Your task to perform on an android device: turn off improve location accuracy Image 0: 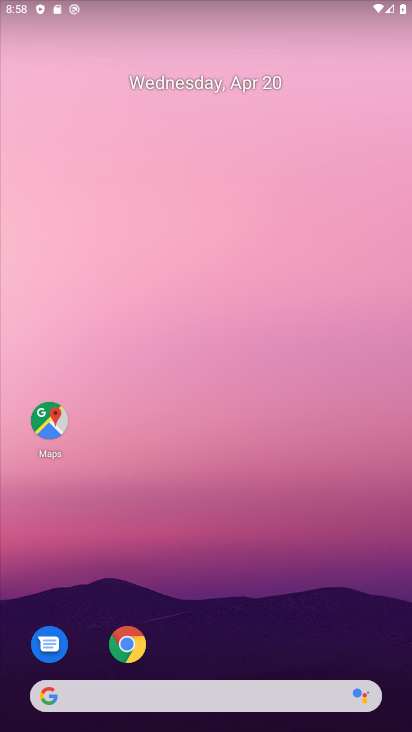
Step 0: drag from (199, 653) to (190, 66)
Your task to perform on an android device: turn off improve location accuracy Image 1: 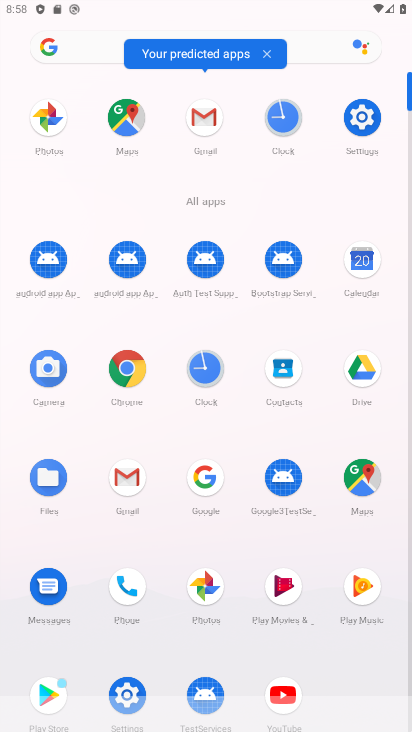
Step 1: click (130, 686)
Your task to perform on an android device: turn off improve location accuracy Image 2: 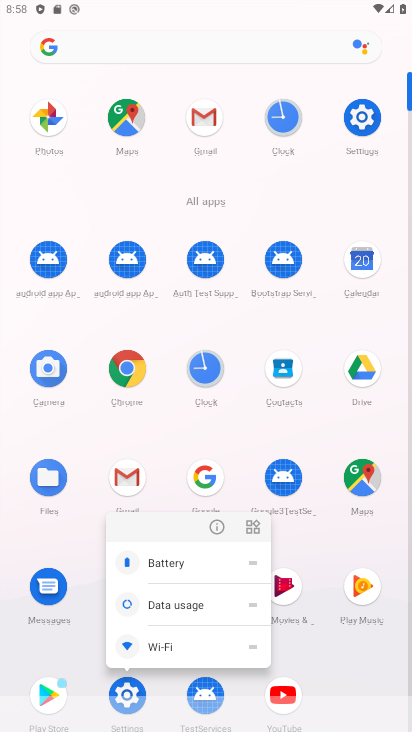
Step 2: click (118, 683)
Your task to perform on an android device: turn off improve location accuracy Image 3: 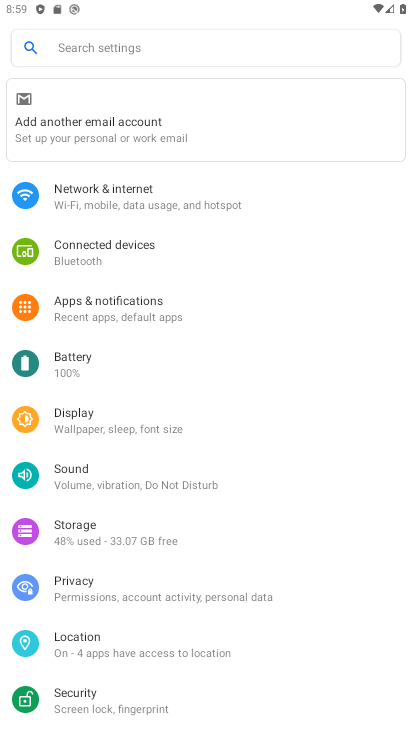
Step 3: click (97, 636)
Your task to perform on an android device: turn off improve location accuracy Image 4: 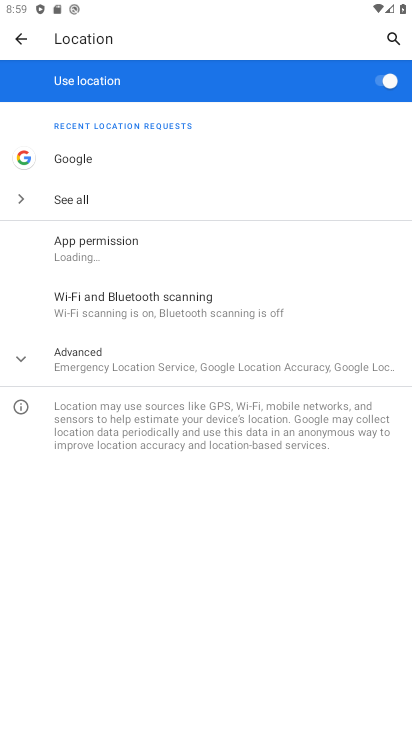
Step 4: click (115, 370)
Your task to perform on an android device: turn off improve location accuracy Image 5: 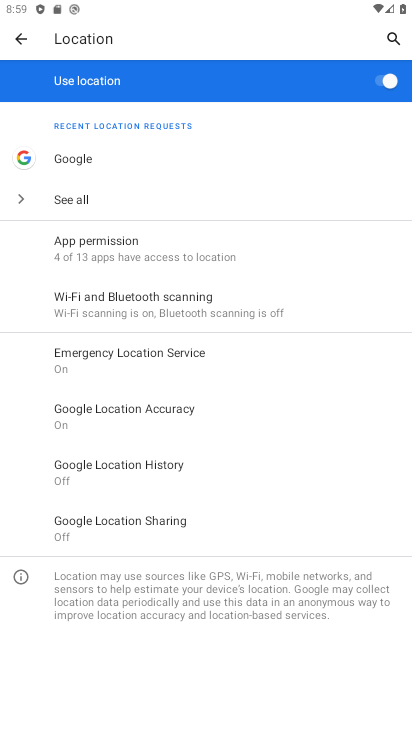
Step 5: click (148, 415)
Your task to perform on an android device: turn off improve location accuracy Image 6: 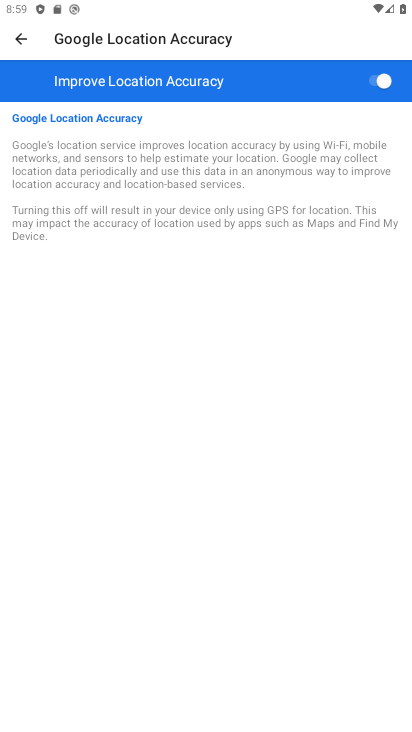
Step 6: click (384, 81)
Your task to perform on an android device: turn off improve location accuracy Image 7: 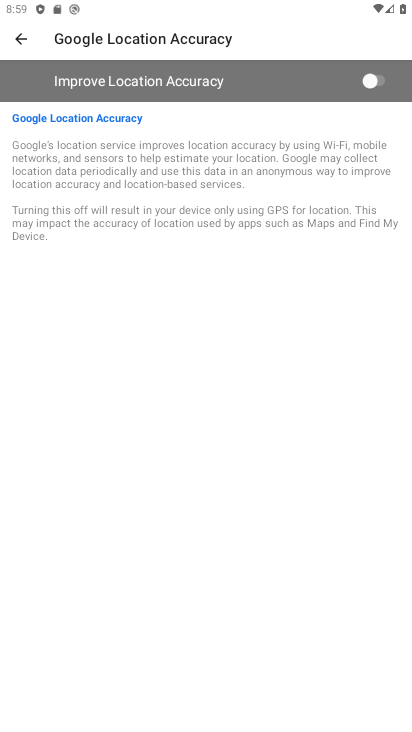
Step 7: task complete